Your task to perform on an android device: Go to Yahoo.com Image 0: 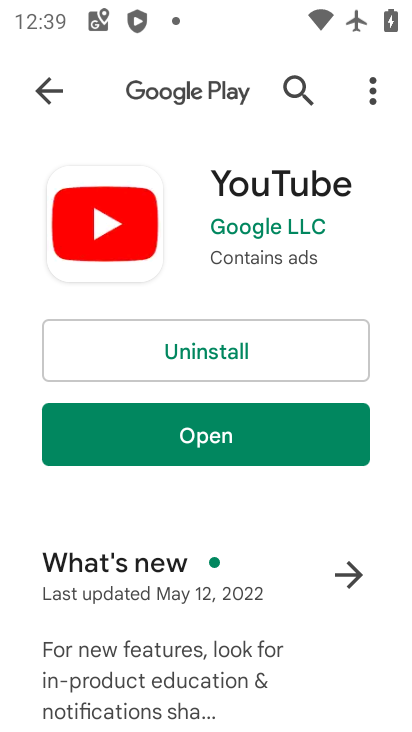
Step 0: press home button
Your task to perform on an android device: Go to Yahoo.com Image 1: 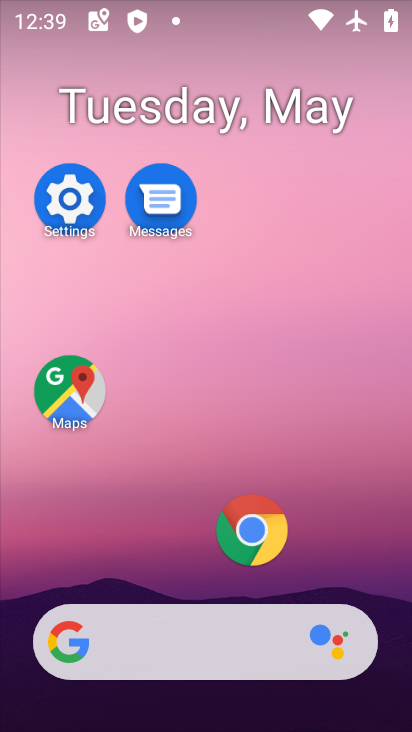
Step 1: drag from (230, 461) to (340, 178)
Your task to perform on an android device: Go to Yahoo.com Image 2: 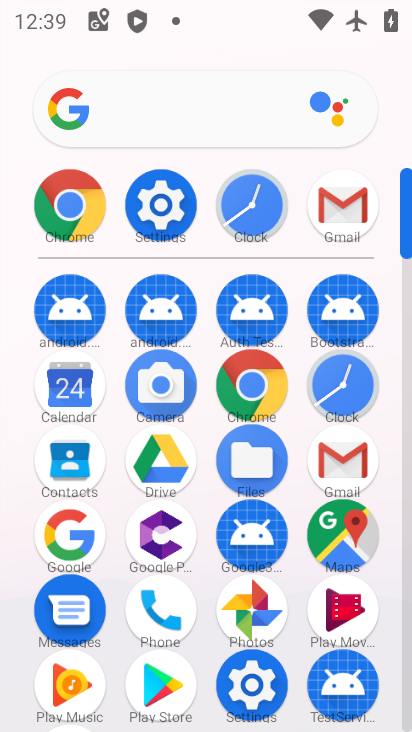
Step 2: click (254, 377)
Your task to perform on an android device: Go to Yahoo.com Image 3: 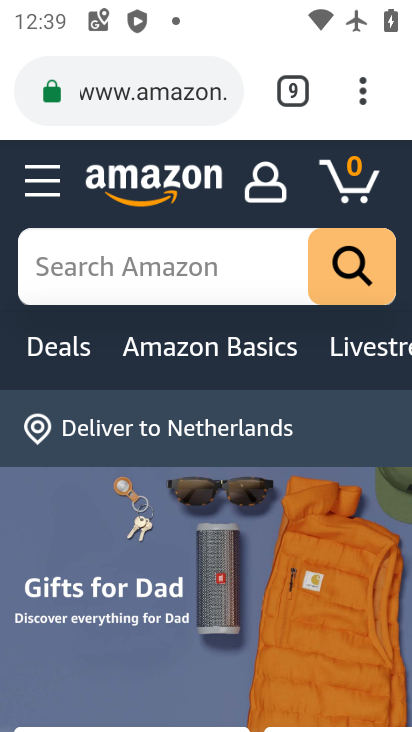
Step 3: click (287, 85)
Your task to perform on an android device: Go to Yahoo.com Image 4: 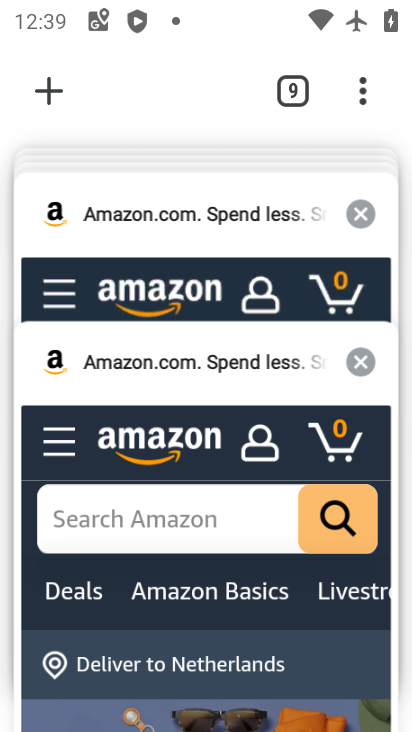
Step 4: click (50, 112)
Your task to perform on an android device: Go to Yahoo.com Image 5: 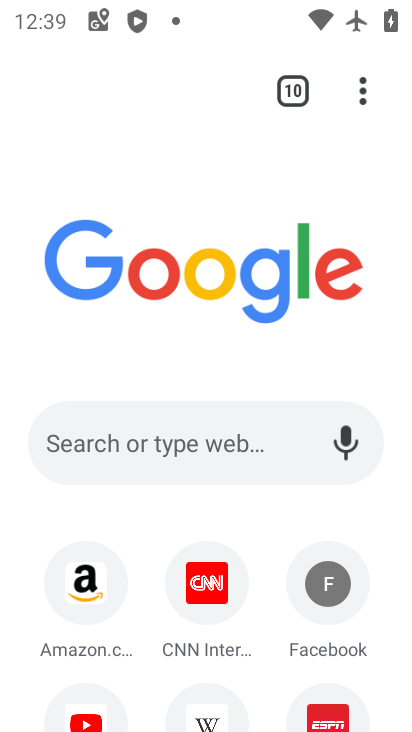
Step 5: drag from (190, 493) to (152, 197)
Your task to perform on an android device: Go to Yahoo.com Image 6: 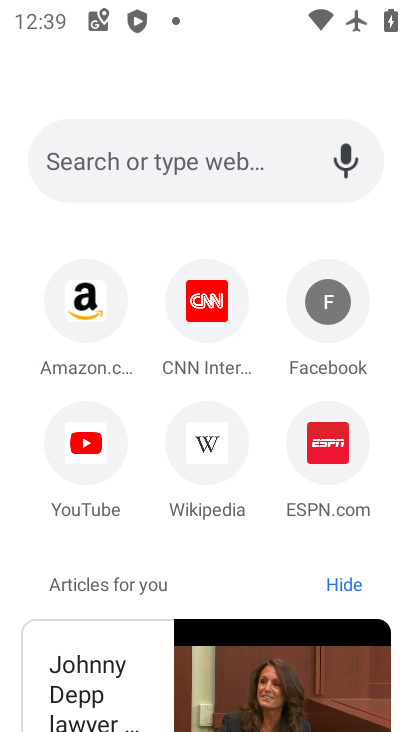
Step 6: click (84, 169)
Your task to perform on an android device: Go to Yahoo.com Image 7: 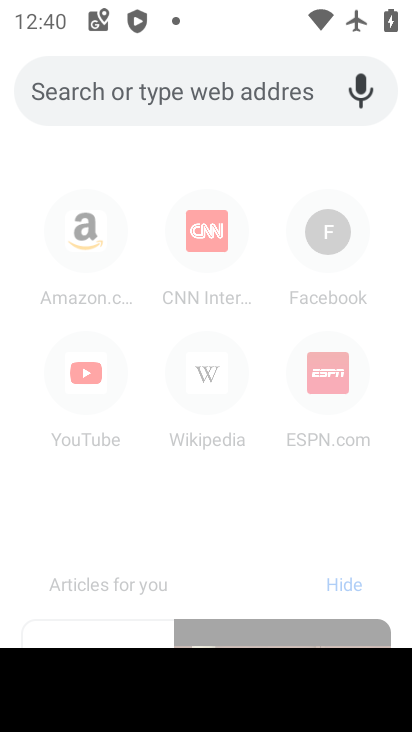
Step 7: type "yahoo.com"
Your task to perform on an android device: Go to Yahoo.com Image 8: 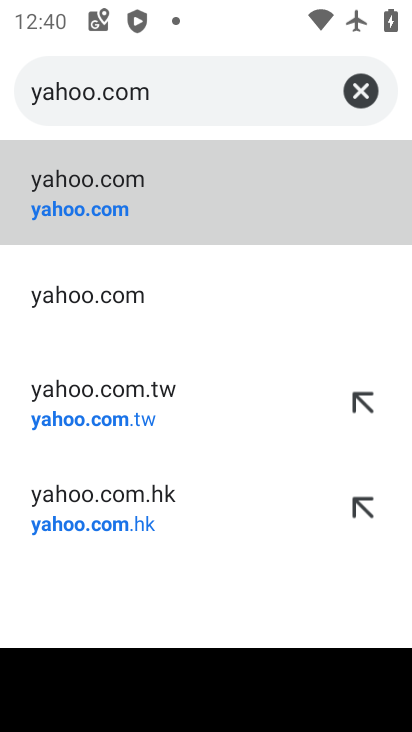
Step 8: click (77, 212)
Your task to perform on an android device: Go to Yahoo.com Image 9: 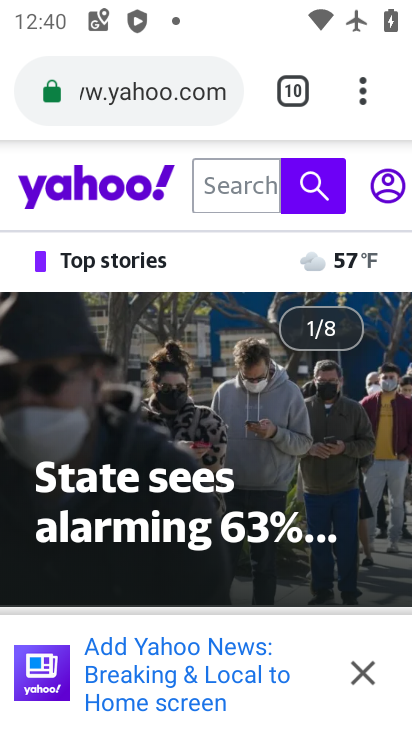
Step 9: task complete